Your task to perform on an android device: turn off smart reply in the gmail app Image 0: 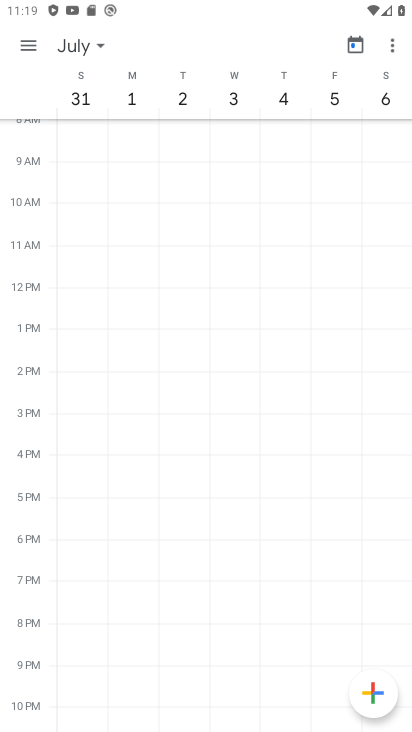
Step 0: press home button
Your task to perform on an android device: turn off smart reply in the gmail app Image 1: 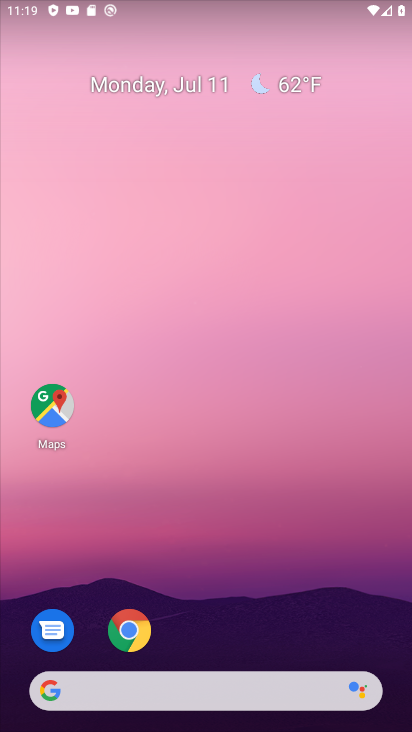
Step 1: drag from (156, 681) to (228, 22)
Your task to perform on an android device: turn off smart reply in the gmail app Image 2: 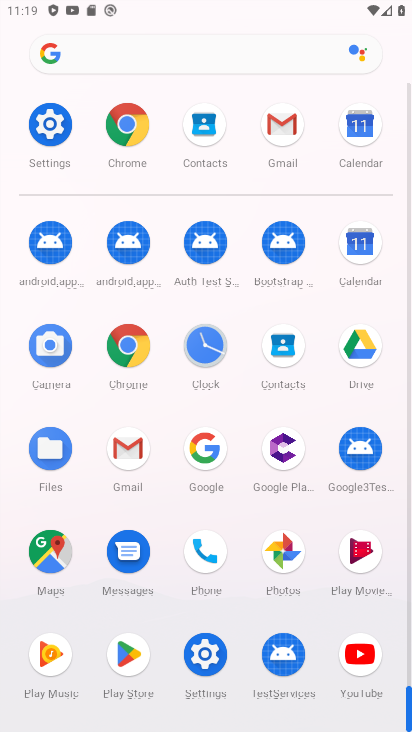
Step 2: click (120, 449)
Your task to perform on an android device: turn off smart reply in the gmail app Image 3: 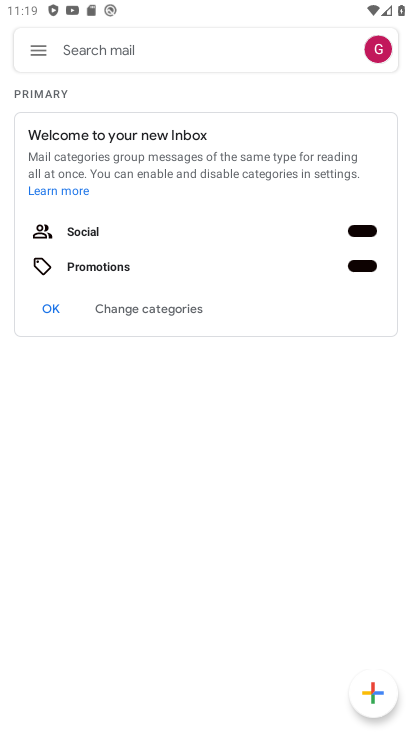
Step 3: click (30, 48)
Your task to perform on an android device: turn off smart reply in the gmail app Image 4: 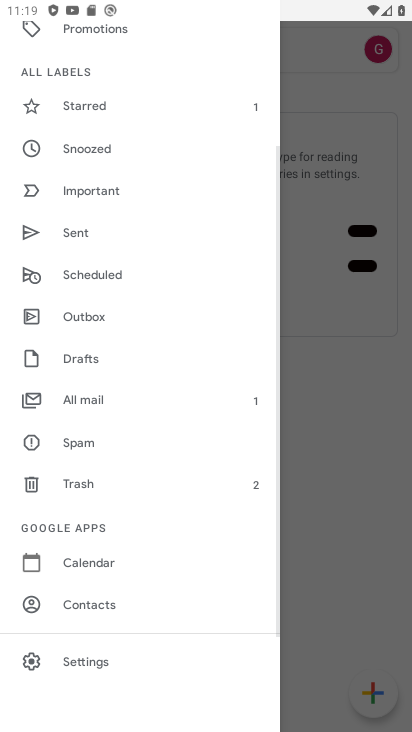
Step 4: click (95, 660)
Your task to perform on an android device: turn off smart reply in the gmail app Image 5: 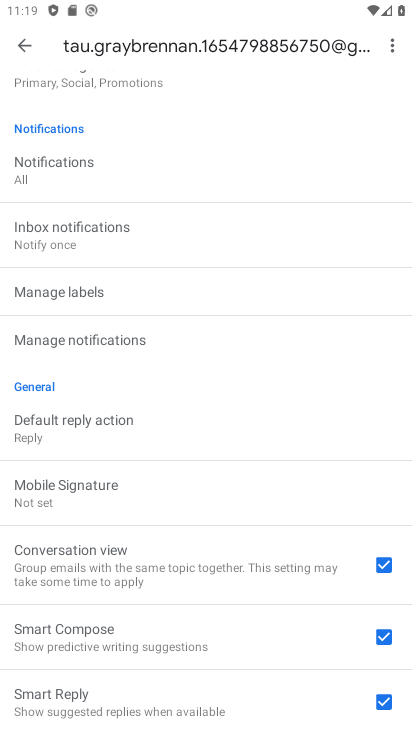
Step 5: click (290, 710)
Your task to perform on an android device: turn off smart reply in the gmail app Image 6: 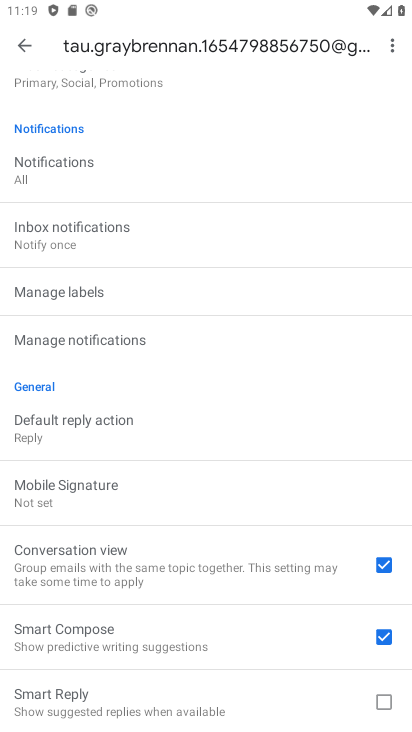
Step 6: task complete